Your task to perform on an android device: change notifications settings Image 0: 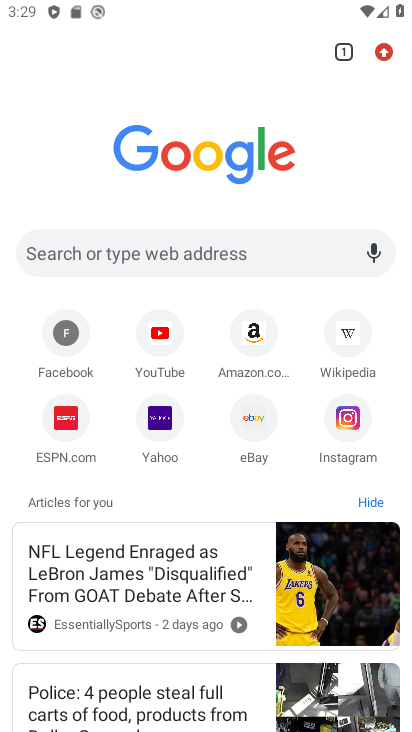
Step 0: press back button
Your task to perform on an android device: change notifications settings Image 1: 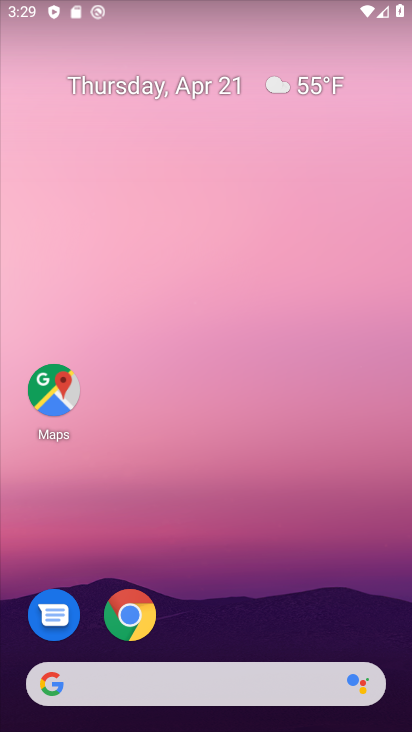
Step 1: drag from (273, 603) to (165, 39)
Your task to perform on an android device: change notifications settings Image 2: 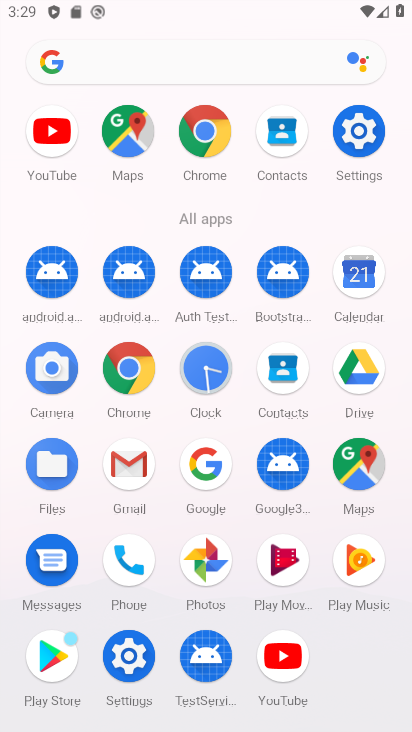
Step 2: click (359, 131)
Your task to perform on an android device: change notifications settings Image 3: 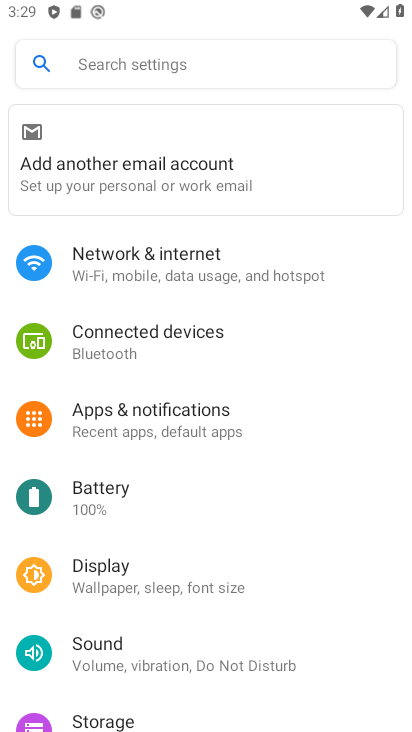
Step 3: click (221, 407)
Your task to perform on an android device: change notifications settings Image 4: 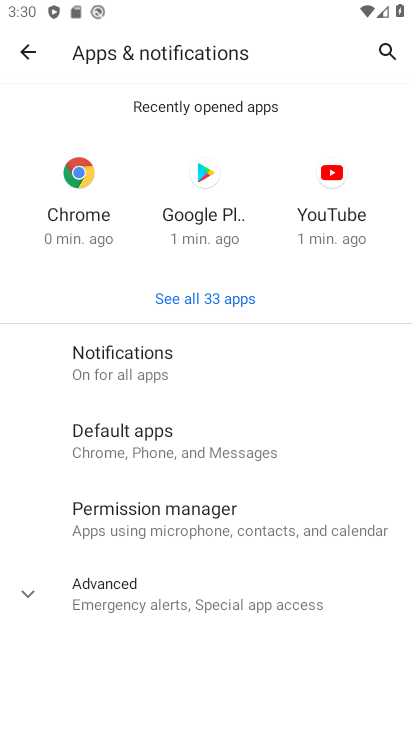
Step 4: click (186, 365)
Your task to perform on an android device: change notifications settings Image 5: 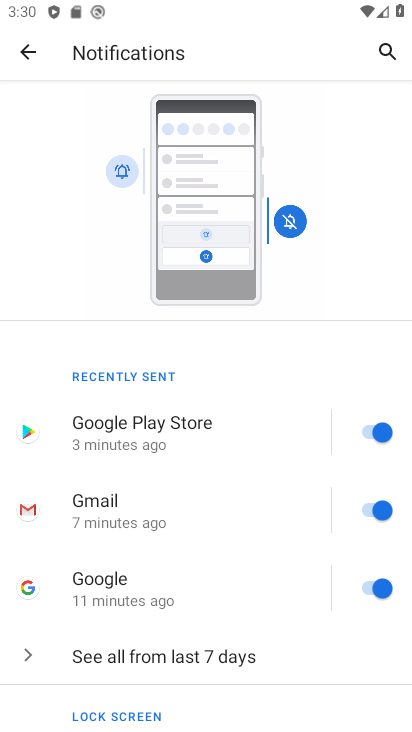
Step 5: drag from (233, 507) to (265, 227)
Your task to perform on an android device: change notifications settings Image 6: 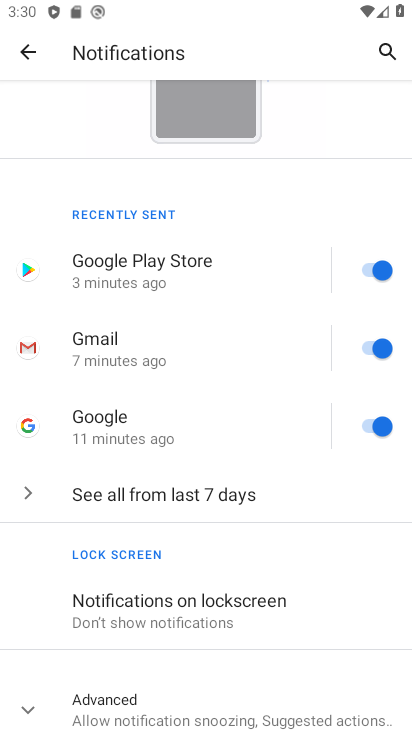
Step 6: drag from (251, 480) to (268, 224)
Your task to perform on an android device: change notifications settings Image 7: 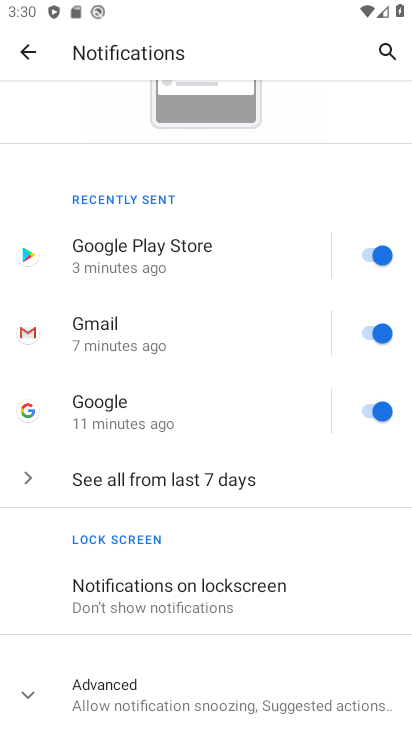
Step 7: drag from (232, 566) to (221, 298)
Your task to perform on an android device: change notifications settings Image 8: 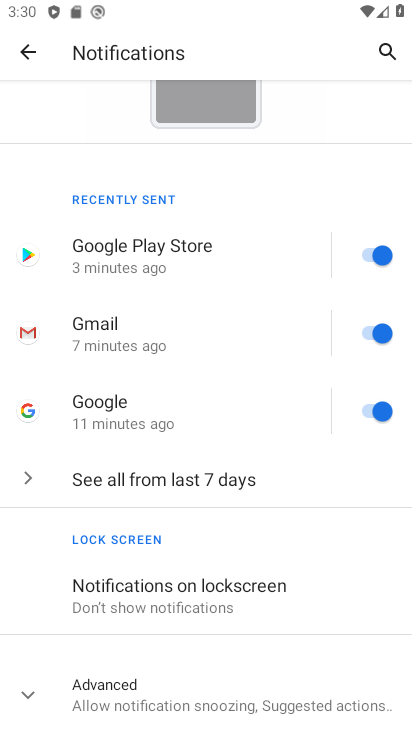
Step 8: click (48, 703)
Your task to perform on an android device: change notifications settings Image 9: 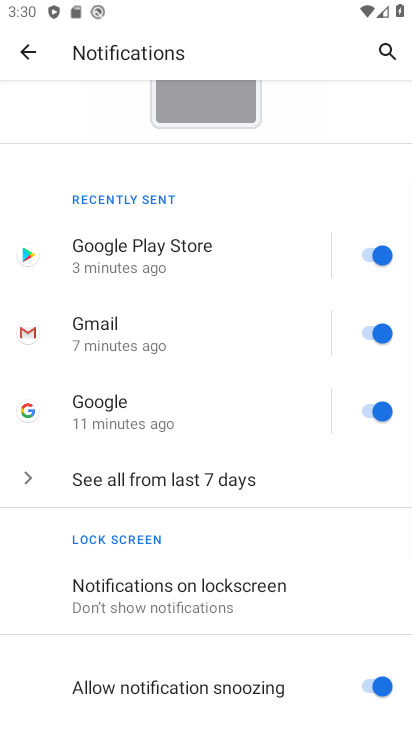
Step 9: drag from (104, 580) to (185, 297)
Your task to perform on an android device: change notifications settings Image 10: 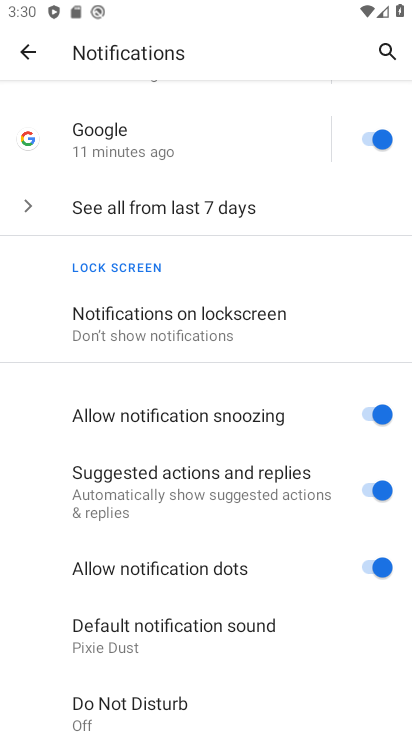
Step 10: drag from (82, 598) to (105, 357)
Your task to perform on an android device: change notifications settings Image 11: 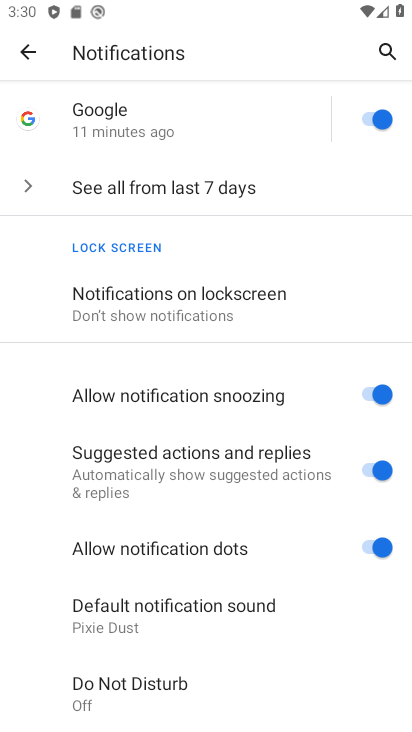
Step 11: click (227, 311)
Your task to perform on an android device: change notifications settings Image 12: 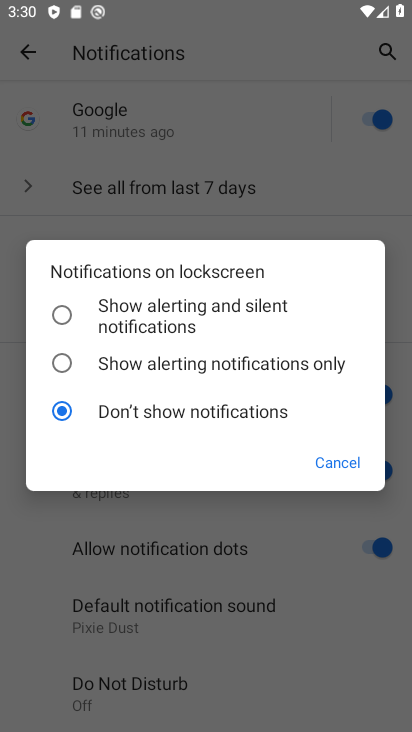
Step 12: click (165, 356)
Your task to perform on an android device: change notifications settings Image 13: 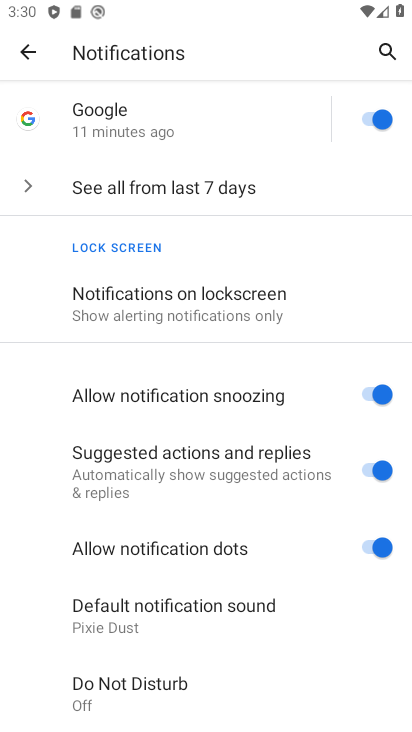
Step 13: task complete